Your task to perform on an android device: Open Chrome and go to settings Image 0: 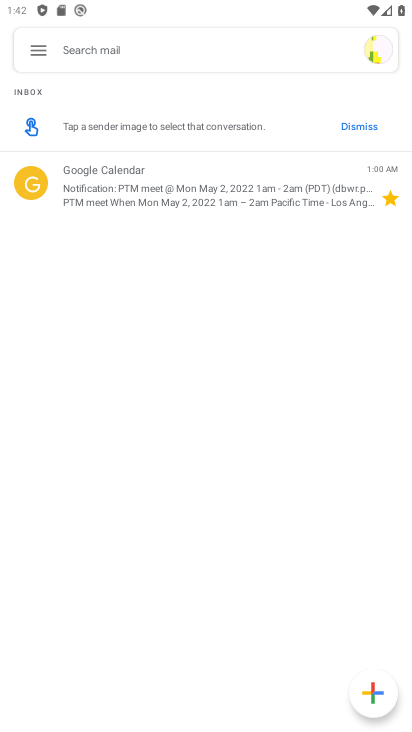
Step 0: press home button
Your task to perform on an android device: Open Chrome and go to settings Image 1: 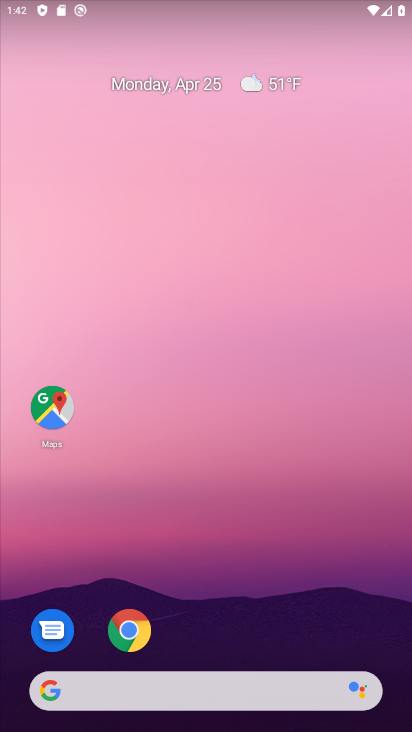
Step 1: drag from (289, 538) to (322, 106)
Your task to perform on an android device: Open Chrome and go to settings Image 2: 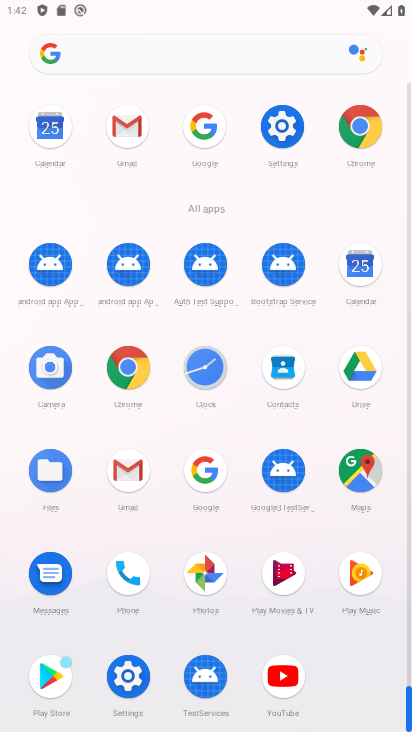
Step 2: click (367, 142)
Your task to perform on an android device: Open Chrome and go to settings Image 3: 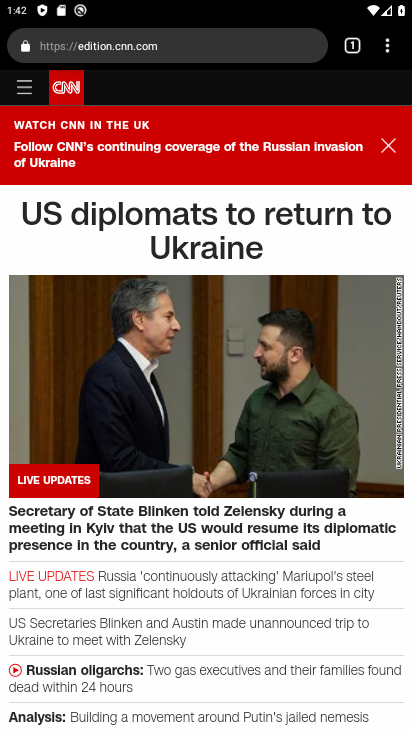
Step 3: task complete